Your task to perform on an android device: Open battery settings Image 0: 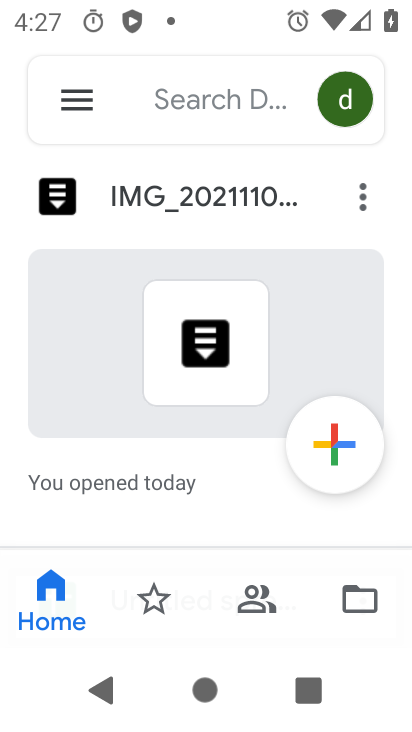
Step 0: press home button
Your task to perform on an android device: Open battery settings Image 1: 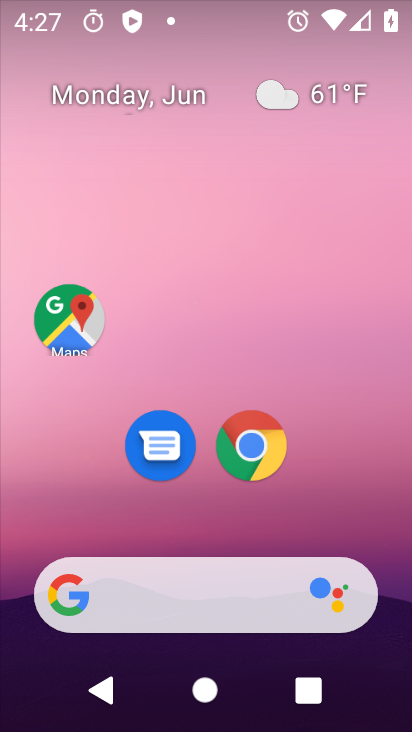
Step 1: drag from (214, 543) to (206, 166)
Your task to perform on an android device: Open battery settings Image 2: 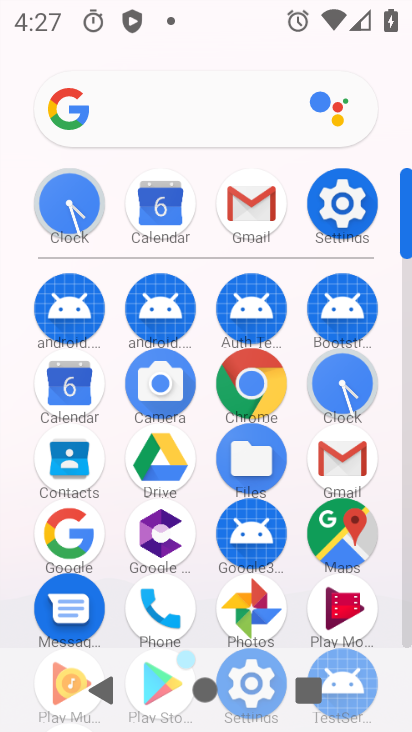
Step 2: click (350, 219)
Your task to perform on an android device: Open battery settings Image 3: 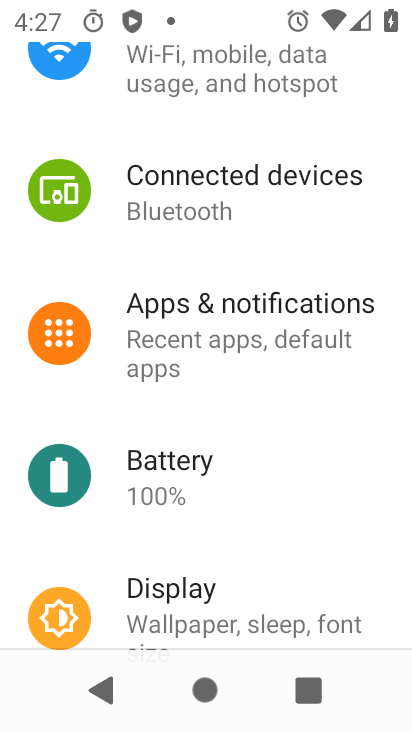
Step 3: click (153, 500)
Your task to perform on an android device: Open battery settings Image 4: 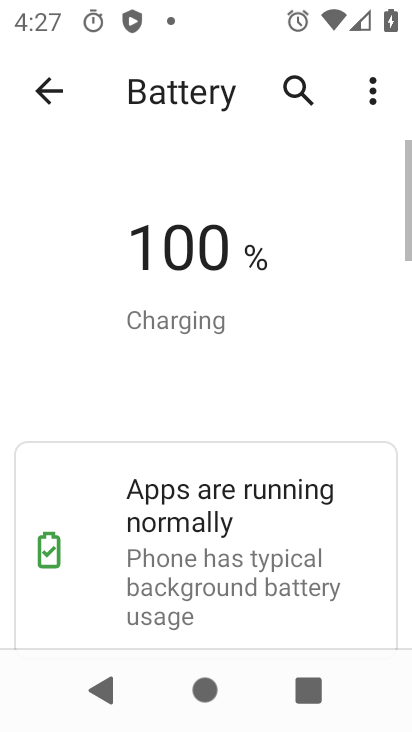
Step 4: task complete